Your task to perform on an android device: Open network settings Image 0: 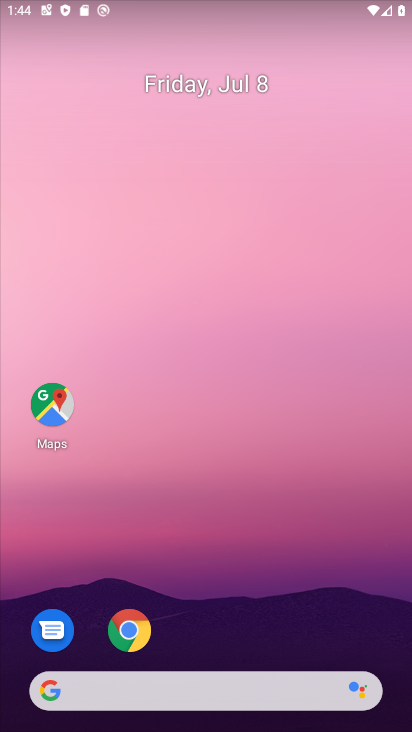
Step 0: press home button
Your task to perform on an android device: Open network settings Image 1: 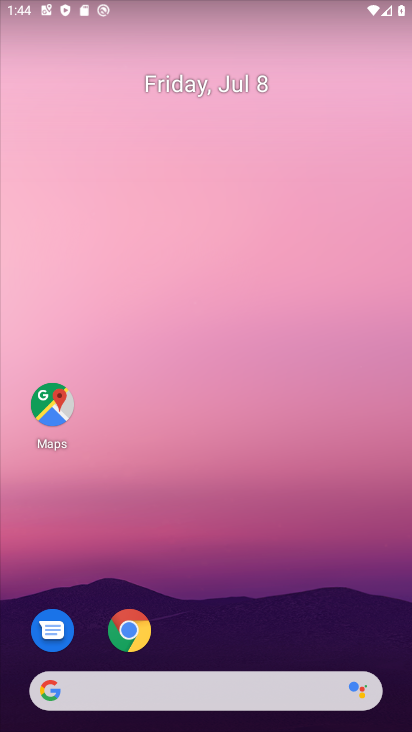
Step 1: drag from (220, 649) to (225, 166)
Your task to perform on an android device: Open network settings Image 2: 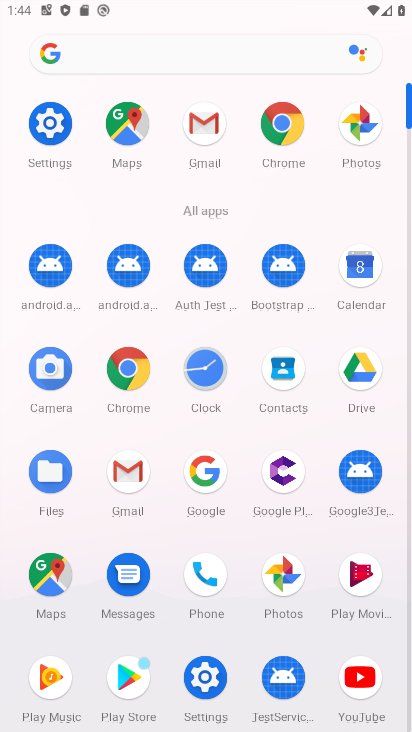
Step 2: click (44, 122)
Your task to perform on an android device: Open network settings Image 3: 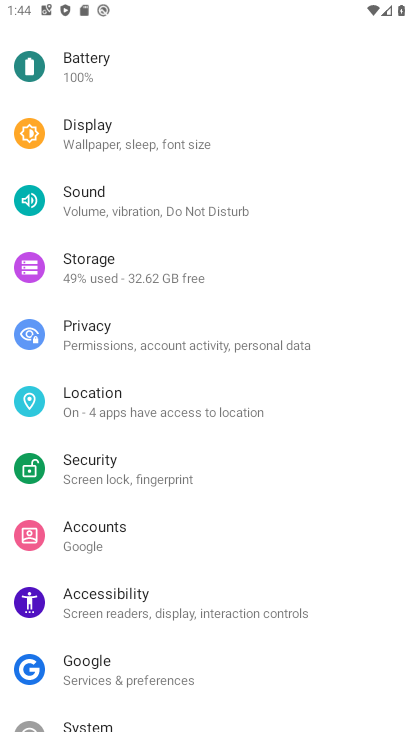
Step 3: drag from (118, 116) to (139, 636)
Your task to perform on an android device: Open network settings Image 4: 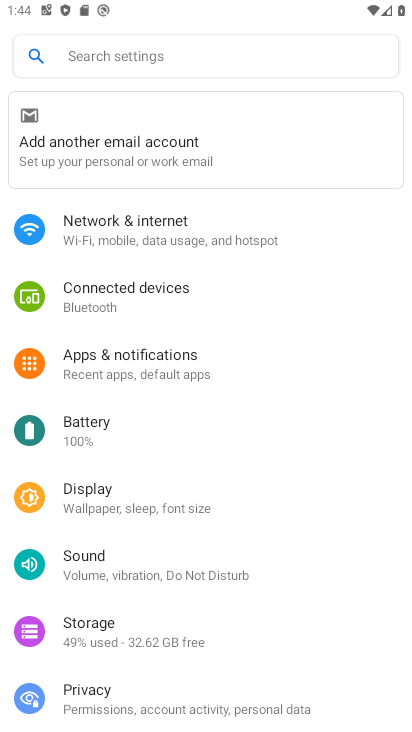
Step 4: click (170, 230)
Your task to perform on an android device: Open network settings Image 5: 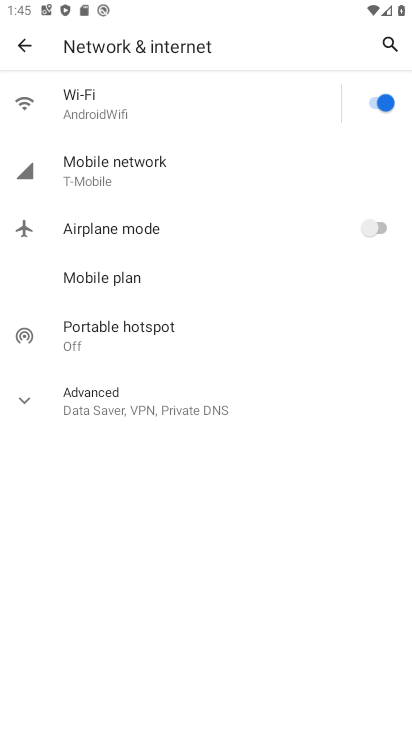
Step 5: click (30, 397)
Your task to perform on an android device: Open network settings Image 6: 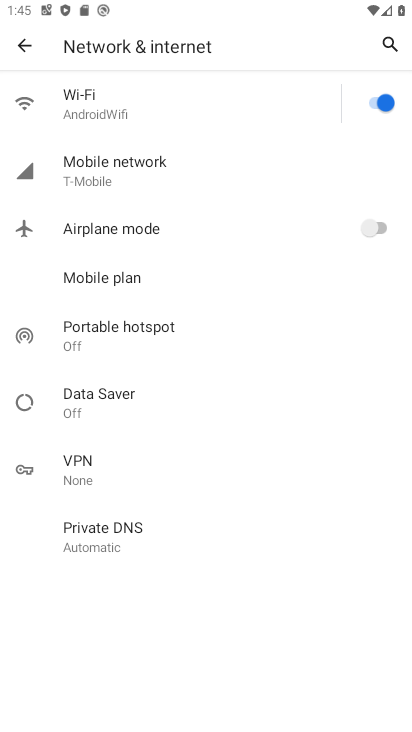
Step 6: task complete